Your task to perform on an android device: turn on wifi Image 0: 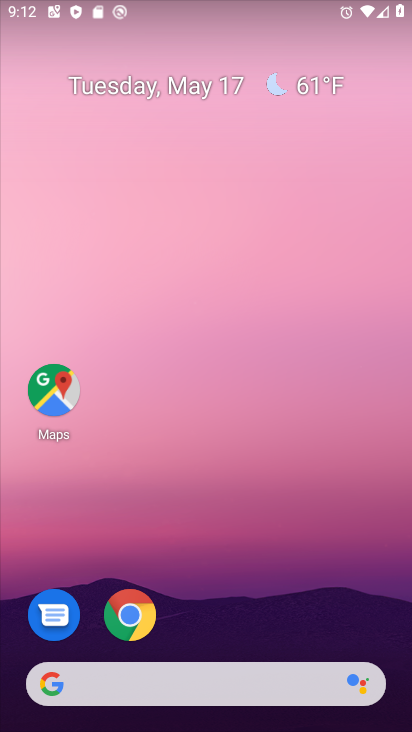
Step 0: drag from (363, 8) to (388, 407)
Your task to perform on an android device: turn on wifi Image 1: 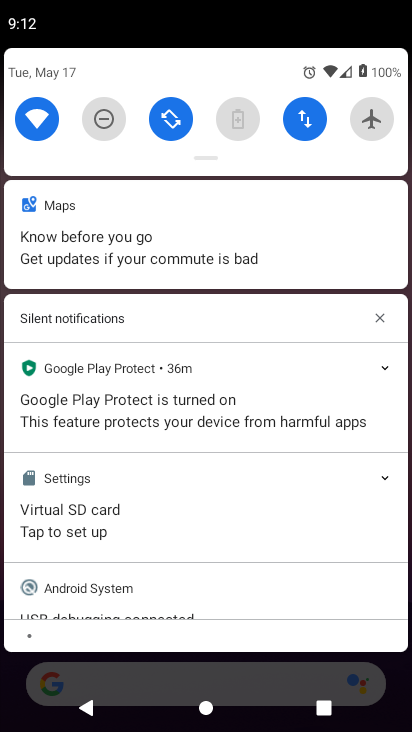
Step 1: task complete